Your task to perform on an android device: Open display settings Image 0: 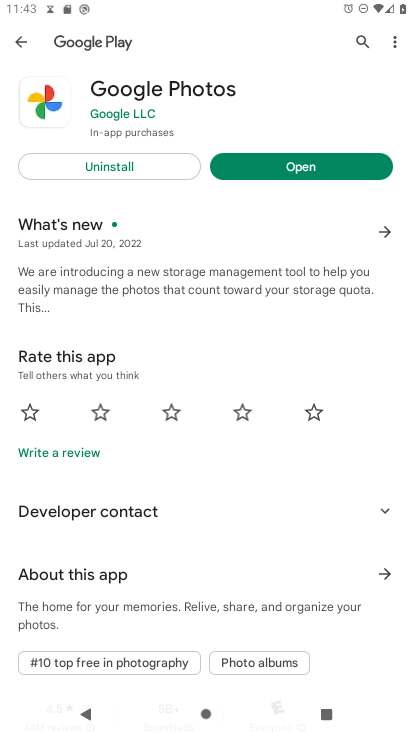
Step 0: press home button
Your task to perform on an android device: Open display settings Image 1: 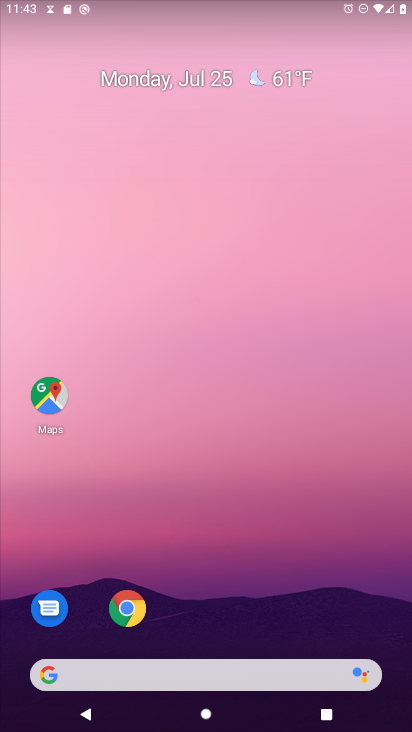
Step 1: drag from (194, 675) to (199, 110)
Your task to perform on an android device: Open display settings Image 2: 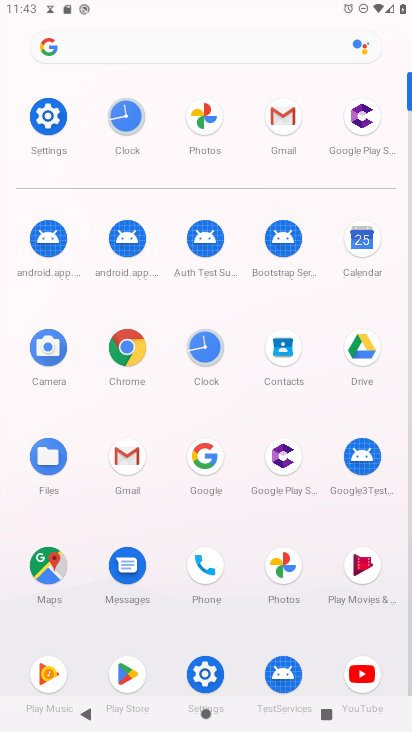
Step 2: click (203, 672)
Your task to perform on an android device: Open display settings Image 3: 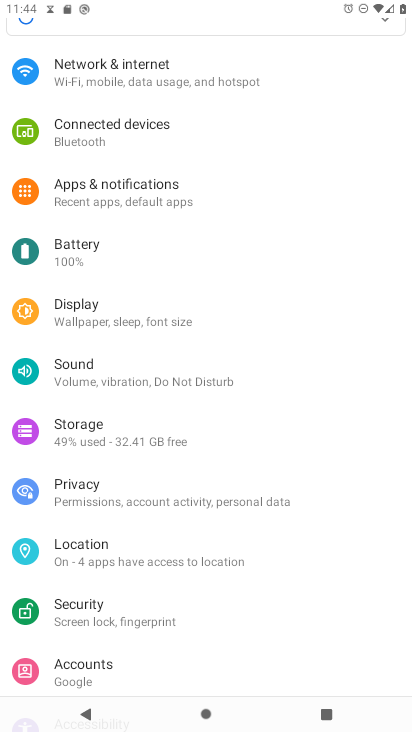
Step 3: click (124, 322)
Your task to perform on an android device: Open display settings Image 4: 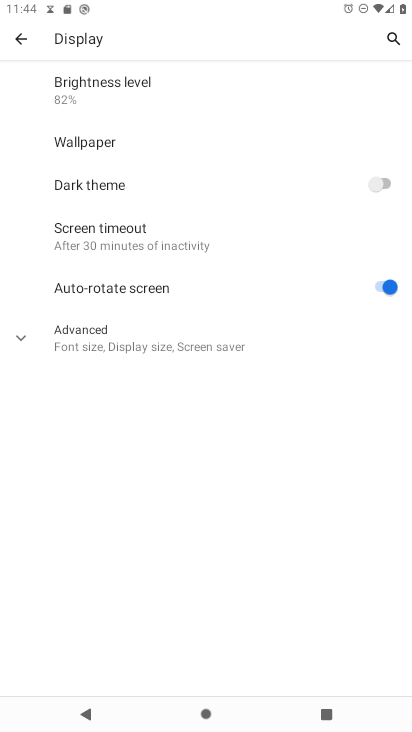
Step 4: task complete